Your task to perform on an android device: change your default location settings in chrome Image 0: 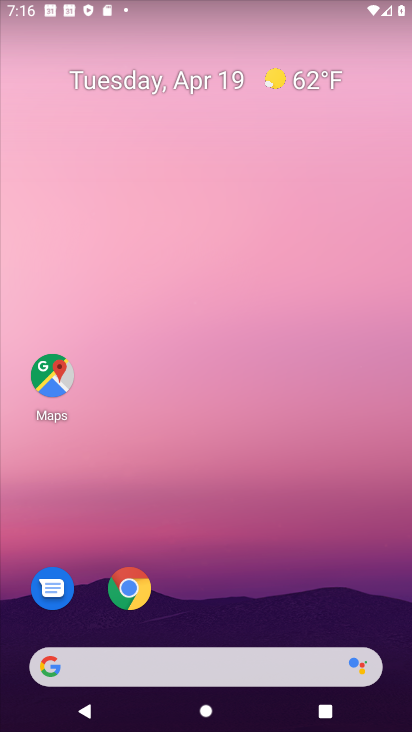
Step 0: click (133, 597)
Your task to perform on an android device: change your default location settings in chrome Image 1: 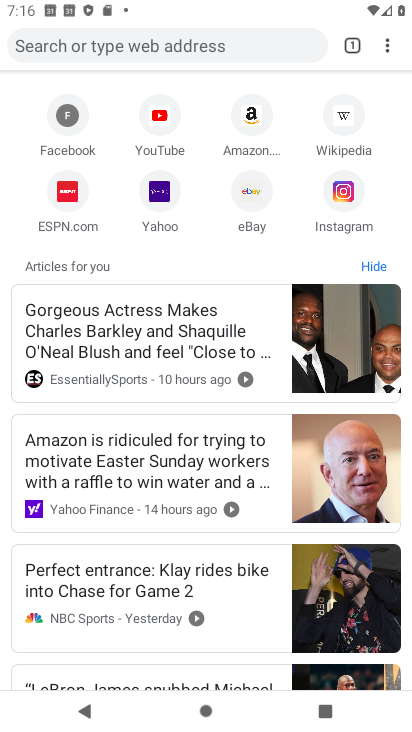
Step 1: click (386, 47)
Your task to perform on an android device: change your default location settings in chrome Image 2: 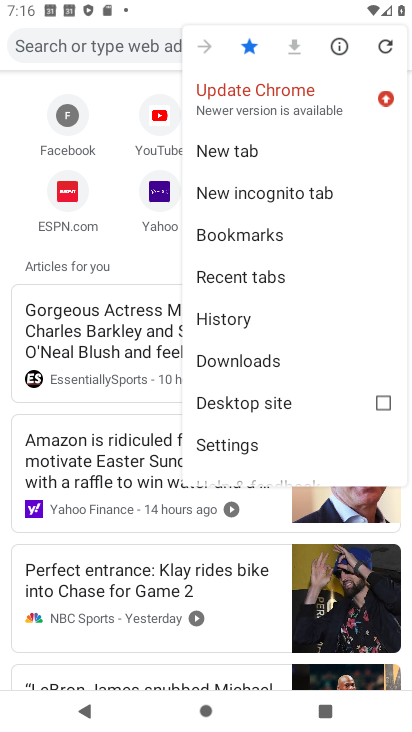
Step 2: click (234, 446)
Your task to perform on an android device: change your default location settings in chrome Image 3: 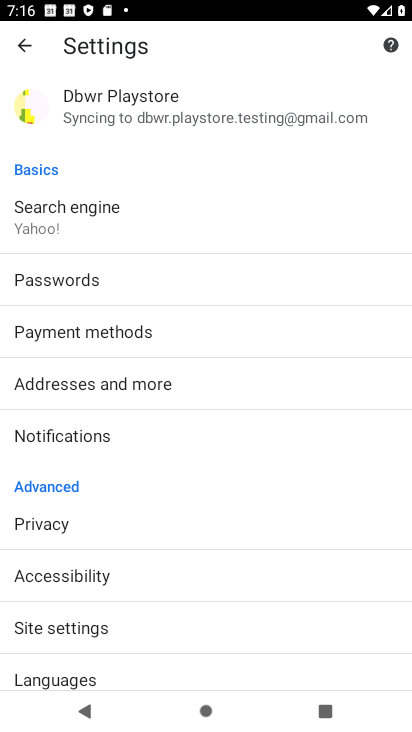
Step 3: click (58, 627)
Your task to perform on an android device: change your default location settings in chrome Image 4: 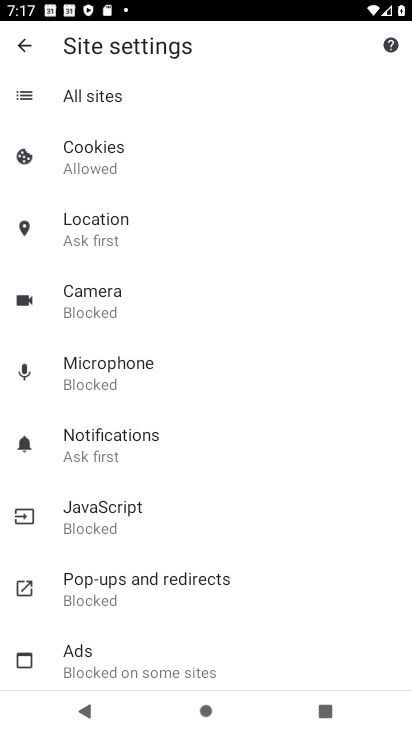
Step 4: click (101, 218)
Your task to perform on an android device: change your default location settings in chrome Image 5: 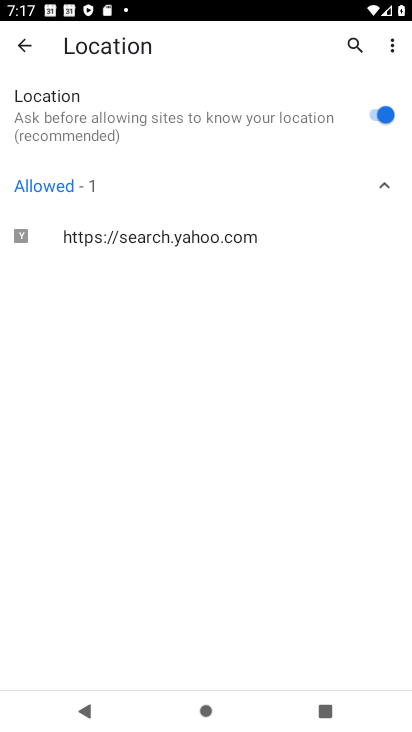
Step 5: click (384, 116)
Your task to perform on an android device: change your default location settings in chrome Image 6: 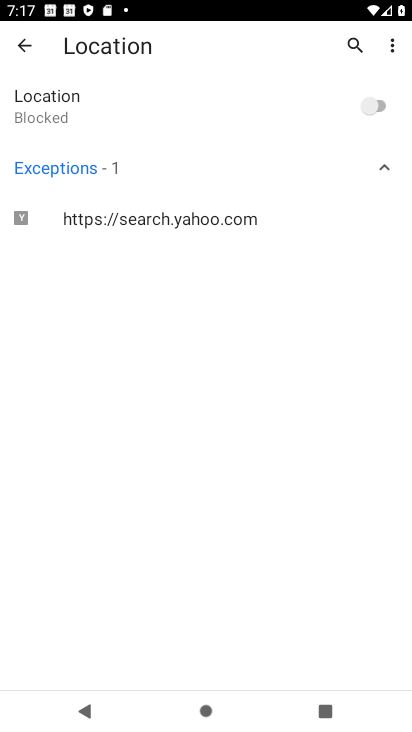
Step 6: task complete